Your task to perform on an android device: What's the weather today? Image 0: 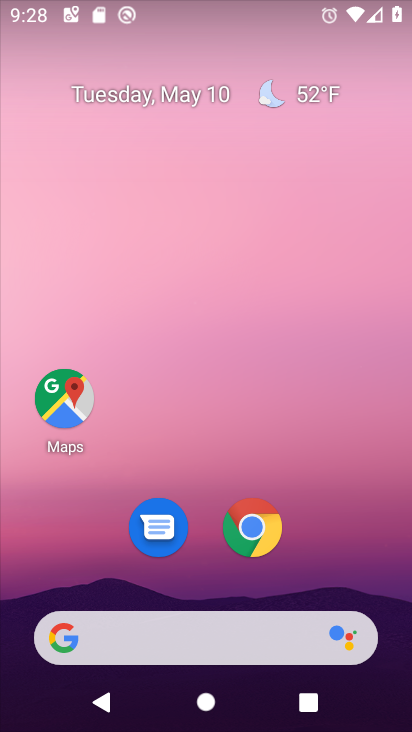
Step 0: click (241, 534)
Your task to perform on an android device: What's the weather today? Image 1: 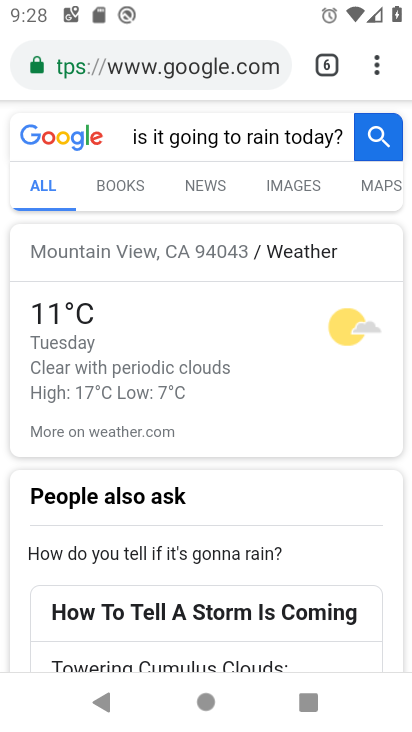
Step 1: task complete